Your task to perform on an android device: See recent photos Image 0: 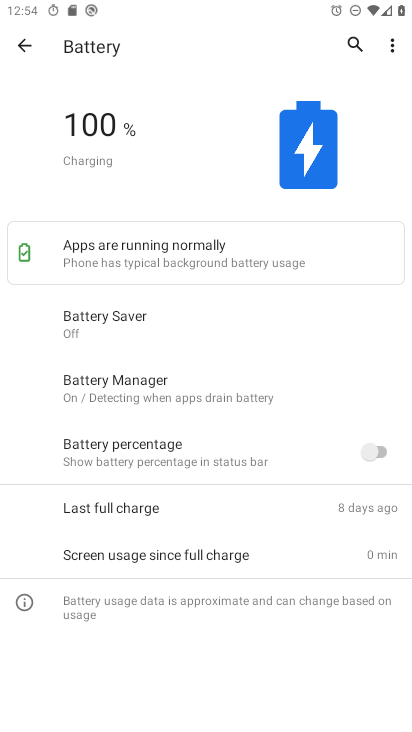
Step 0: press home button
Your task to perform on an android device: See recent photos Image 1: 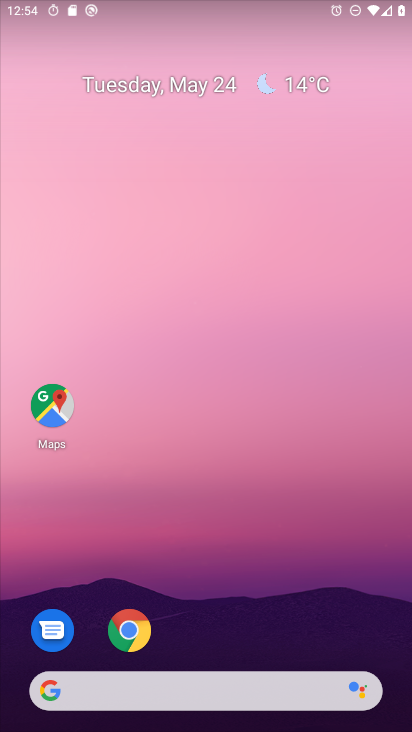
Step 1: drag from (389, 615) to (315, 123)
Your task to perform on an android device: See recent photos Image 2: 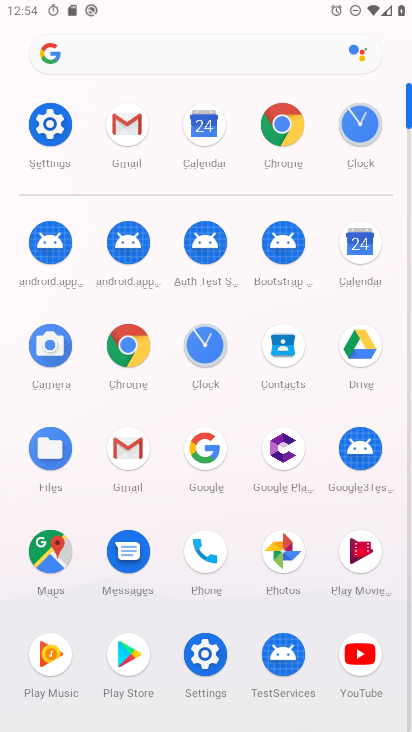
Step 2: click (288, 550)
Your task to perform on an android device: See recent photos Image 3: 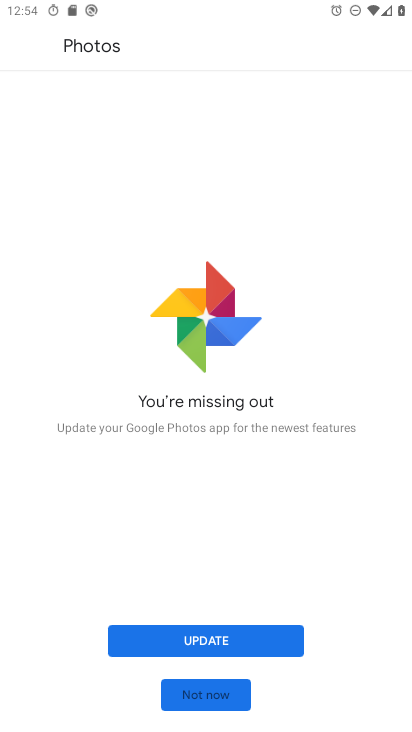
Step 3: click (204, 636)
Your task to perform on an android device: See recent photos Image 4: 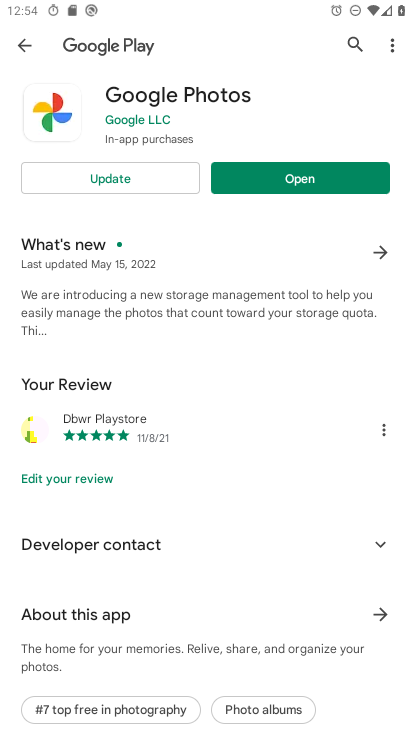
Step 4: click (134, 186)
Your task to perform on an android device: See recent photos Image 5: 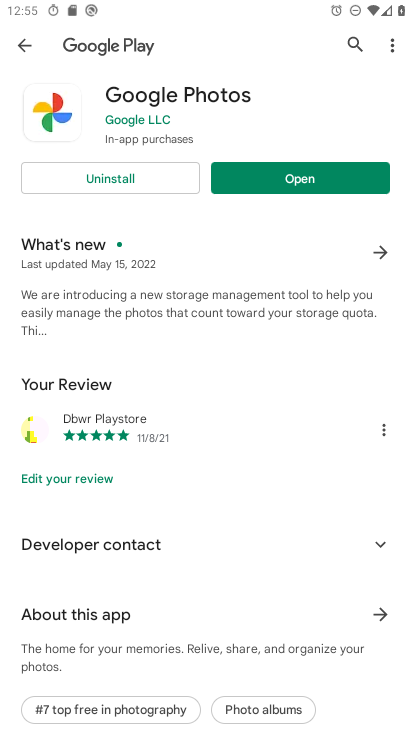
Step 5: click (303, 187)
Your task to perform on an android device: See recent photos Image 6: 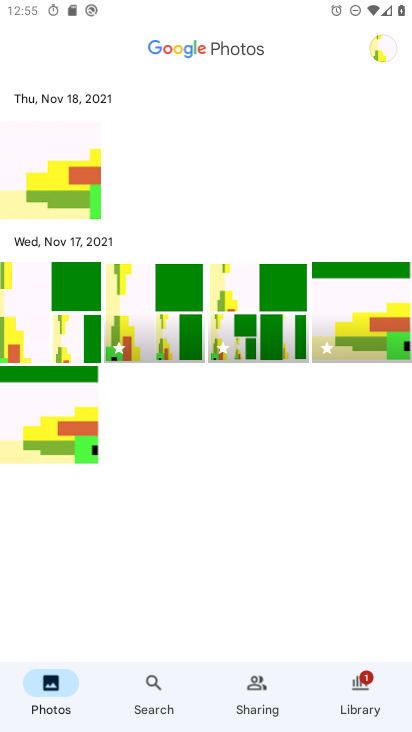
Step 6: task complete